Your task to perform on an android device: Go to network settings Image 0: 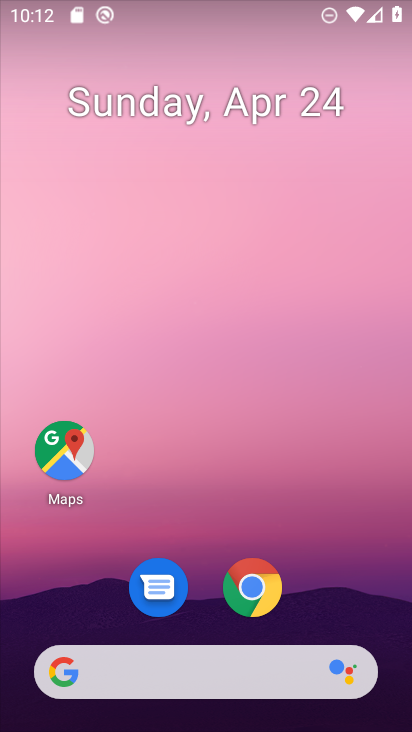
Step 0: drag from (375, 607) to (366, 128)
Your task to perform on an android device: Go to network settings Image 1: 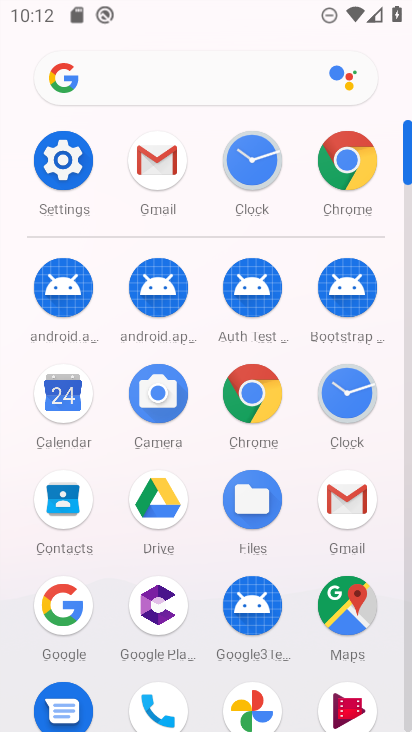
Step 1: click (62, 174)
Your task to perform on an android device: Go to network settings Image 2: 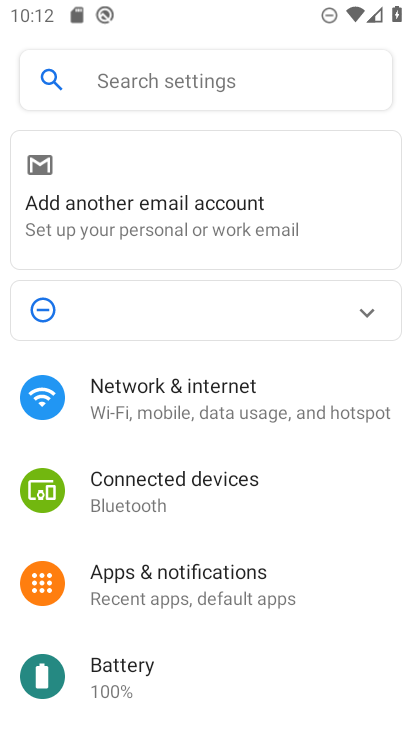
Step 2: drag from (311, 629) to (306, 260)
Your task to perform on an android device: Go to network settings Image 3: 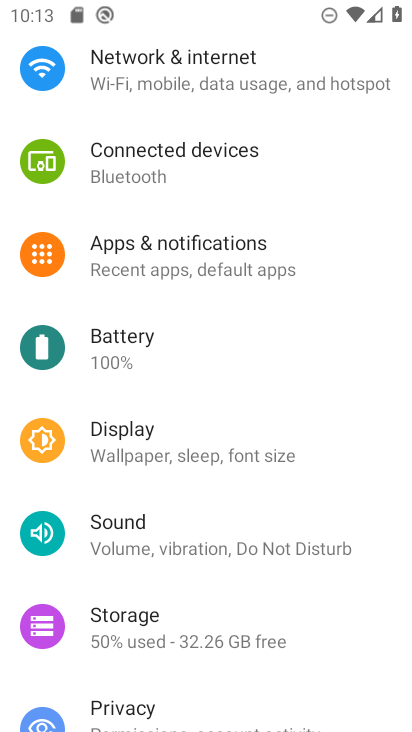
Step 3: drag from (292, 625) to (301, 386)
Your task to perform on an android device: Go to network settings Image 4: 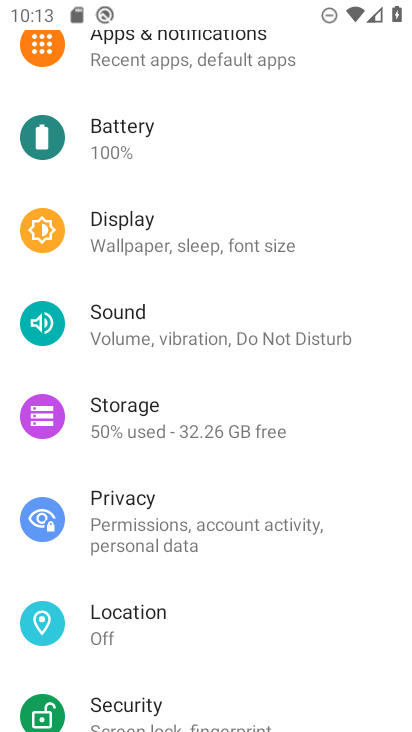
Step 4: drag from (296, 593) to (334, 304)
Your task to perform on an android device: Go to network settings Image 5: 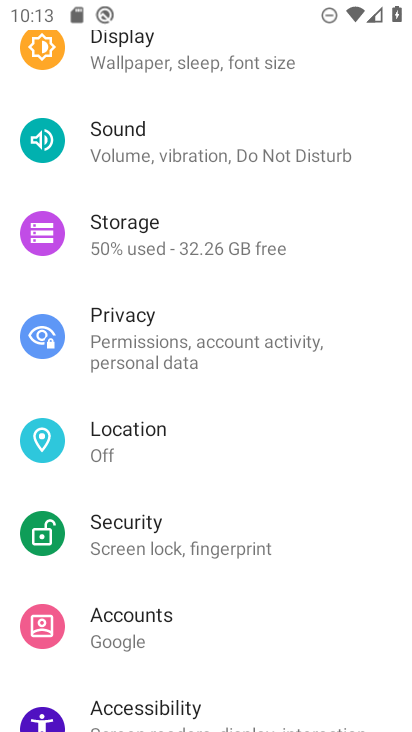
Step 5: drag from (243, 595) to (274, 394)
Your task to perform on an android device: Go to network settings Image 6: 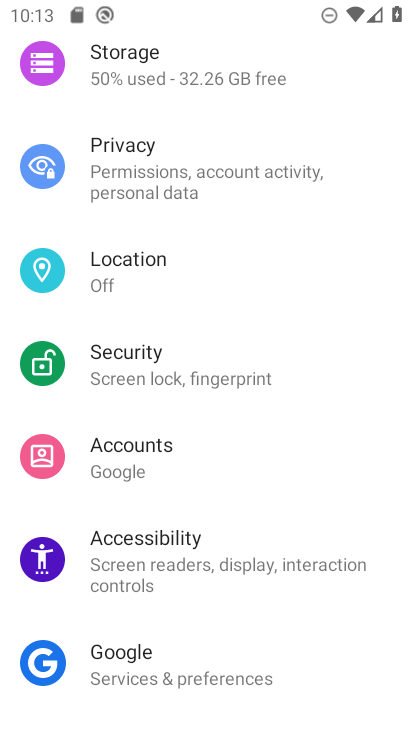
Step 6: drag from (237, 104) to (270, 657)
Your task to perform on an android device: Go to network settings Image 7: 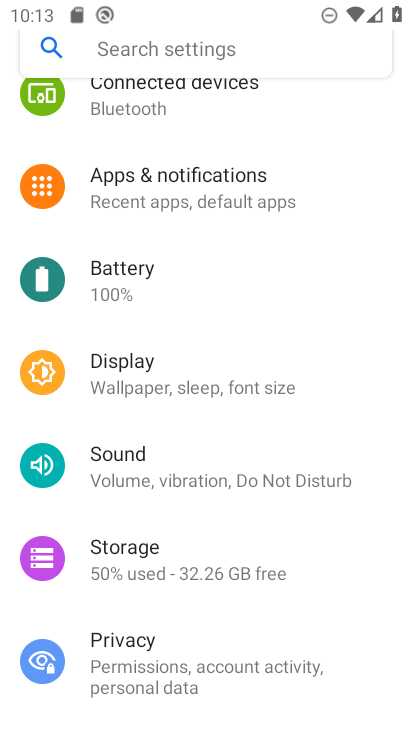
Step 7: drag from (218, 276) to (302, 666)
Your task to perform on an android device: Go to network settings Image 8: 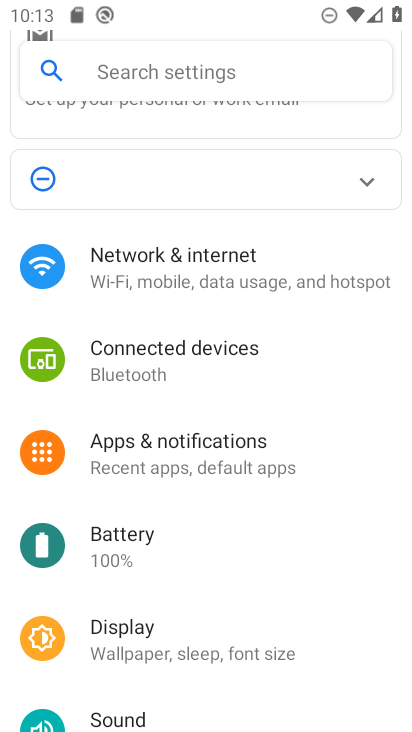
Step 8: click (198, 271)
Your task to perform on an android device: Go to network settings Image 9: 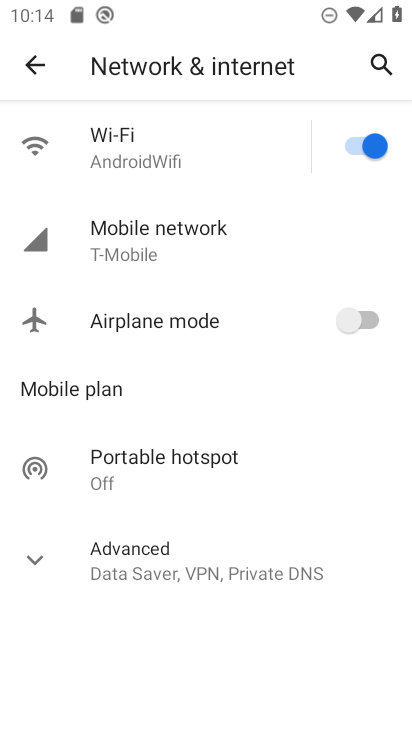
Step 9: click (152, 229)
Your task to perform on an android device: Go to network settings Image 10: 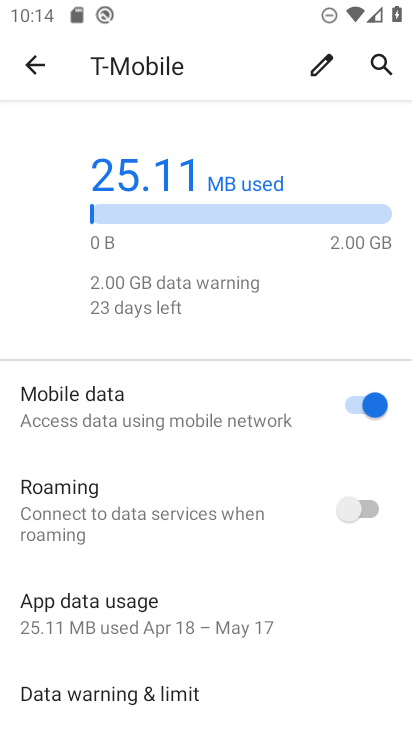
Step 10: task complete